Your task to perform on an android device: change timer sound Image 0: 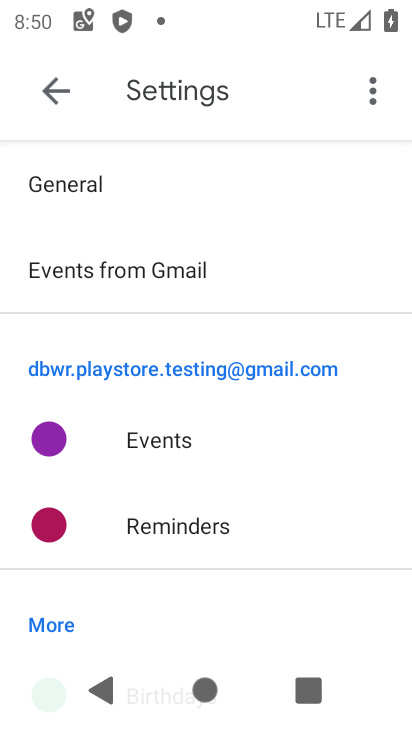
Step 0: press home button
Your task to perform on an android device: change timer sound Image 1: 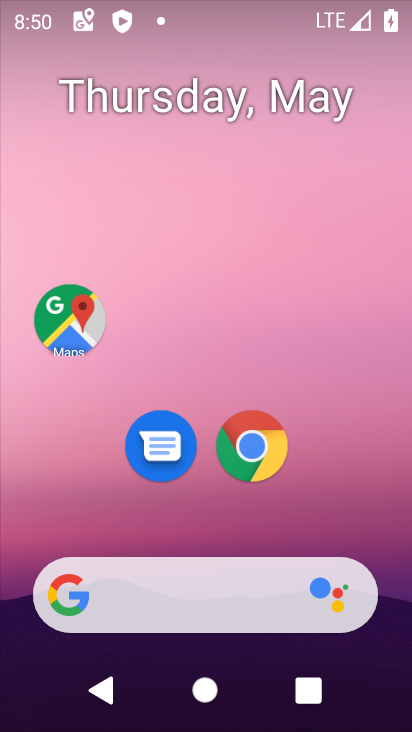
Step 1: drag from (395, 604) to (302, 32)
Your task to perform on an android device: change timer sound Image 2: 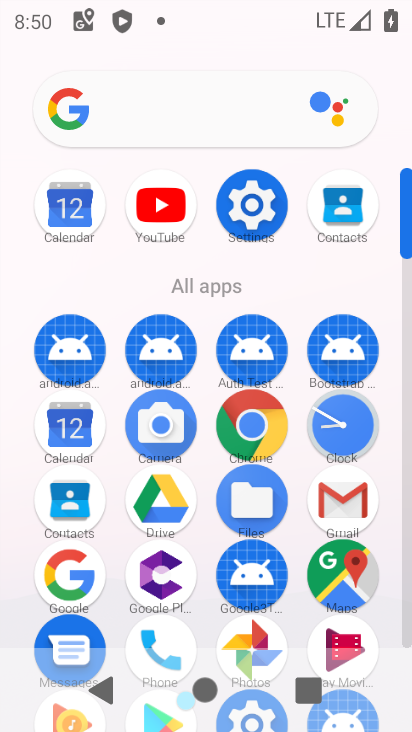
Step 2: click (406, 640)
Your task to perform on an android device: change timer sound Image 3: 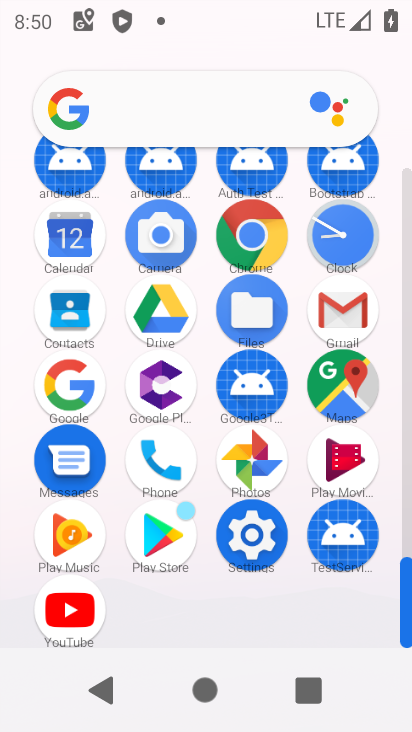
Step 3: click (343, 229)
Your task to perform on an android device: change timer sound Image 4: 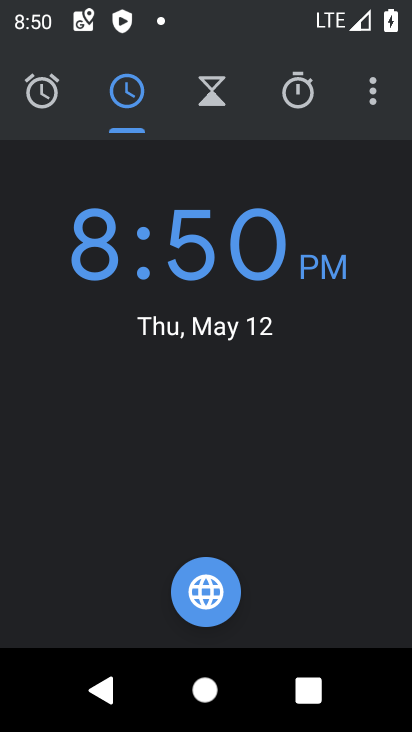
Step 4: click (370, 94)
Your task to perform on an android device: change timer sound Image 5: 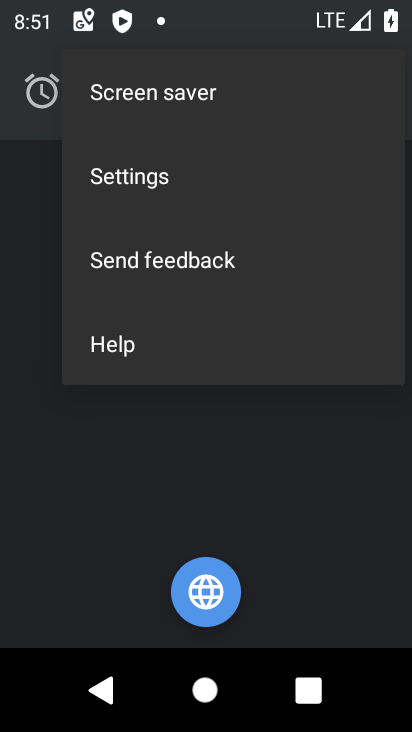
Step 5: click (109, 174)
Your task to perform on an android device: change timer sound Image 6: 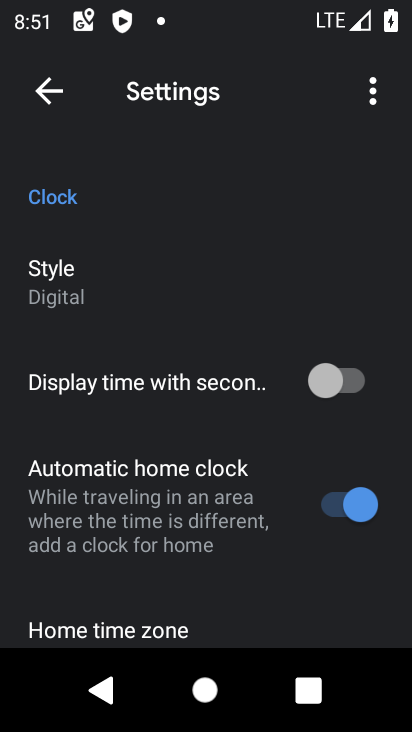
Step 6: drag from (207, 585) to (283, 124)
Your task to perform on an android device: change timer sound Image 7: 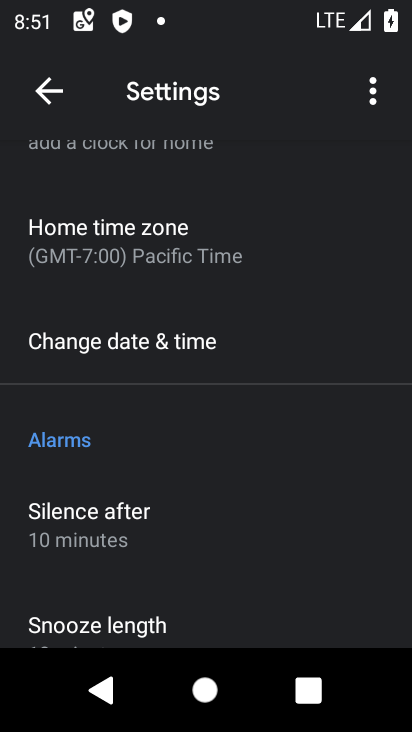
Step 7: drag from (220, 572) to (257, 176)
Your task to perform on an android device: change timer sound Image 8: 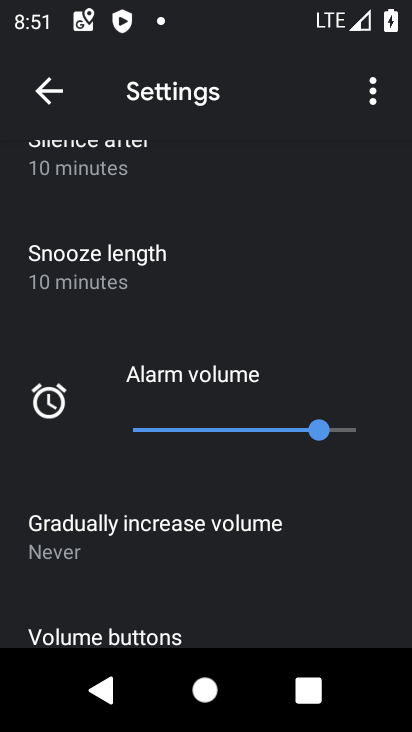
Step 8: drag from (260, 591) to (242, 111)
Your task to perform on an android device: change timer sound Image 9: 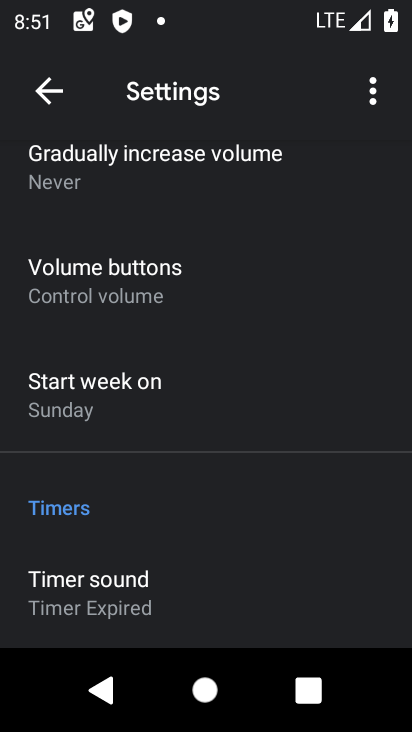
Step 9: drag from (211, 548) to (249, 142)
Your task to perform on an android device: change timer sound Image 10: 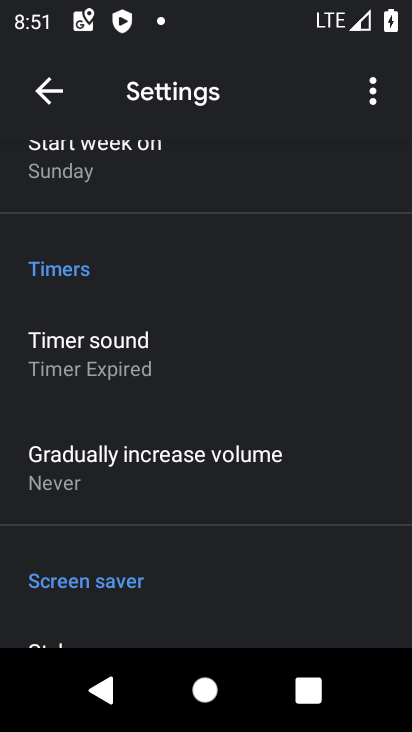
Step 10: click (89, 370)
Your task to perform on an android device: change timer sound Image 11: 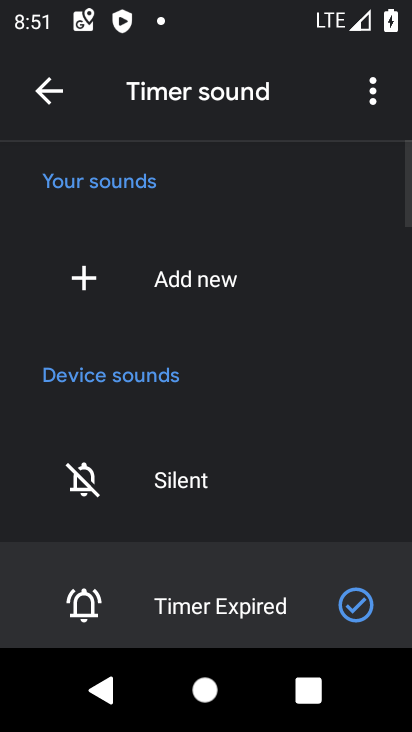
Step 11: drag from (259, 558) to (250, 86)
Your task to perform on an android device: change timer sound Image 12: 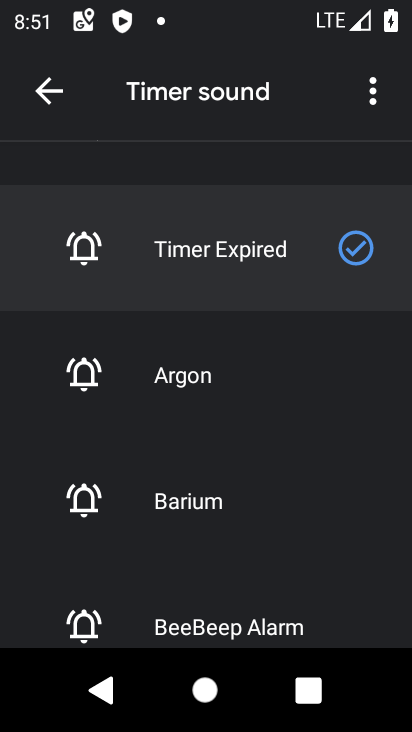
Step 12: drag from (272, 574) to (332, 116)
Your task to perform on an android device: change timer sound Image 13: 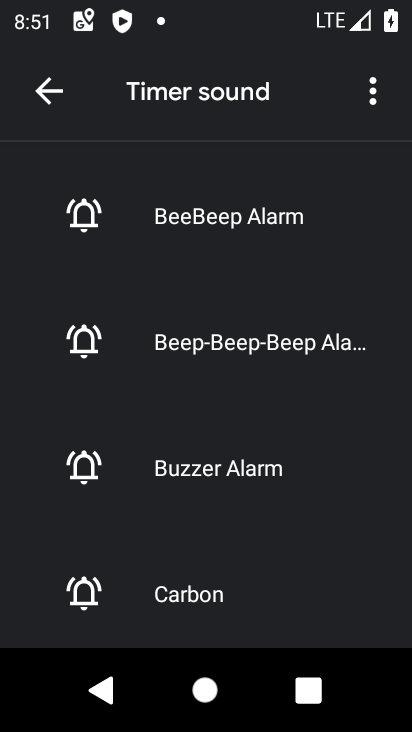
Step 13: click (251, 339)
Your task to perform on an android device: change timer sound Image 14: 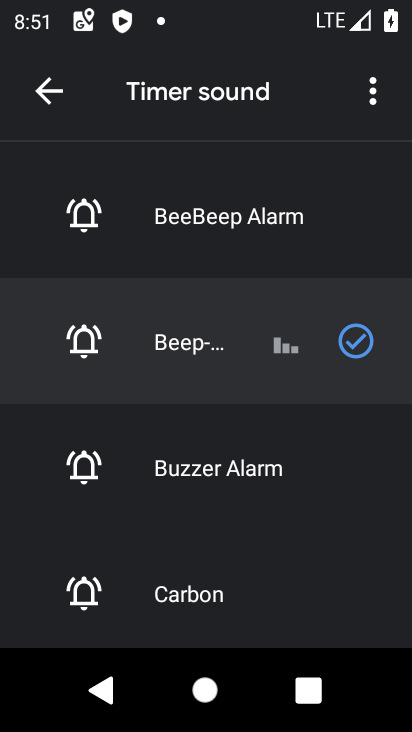
Step 14: task complete